Your task to perform on an android device: Open maps Image 0: 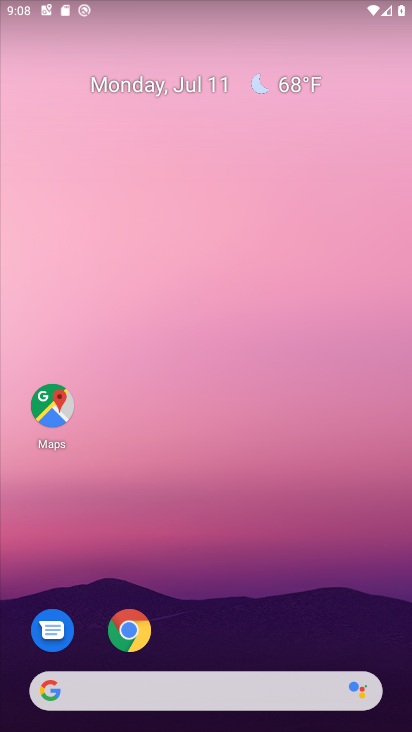
Step 0: click (51, 412)
Your task to perform on an android device: Open maps Image 1: 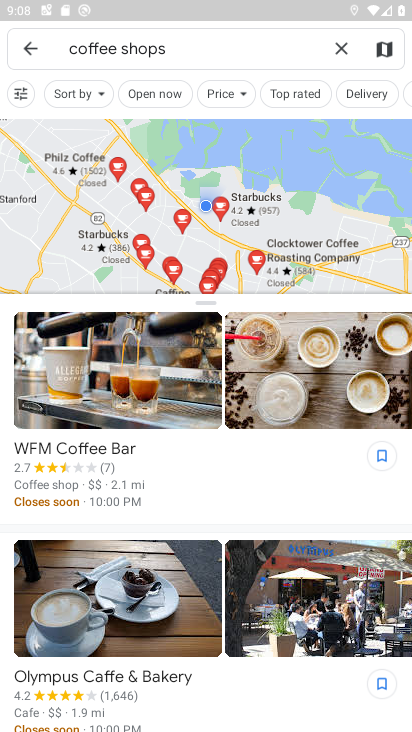
Step 1: click (13, 45)
Your task to perform on an android device: Open maps Image 2: 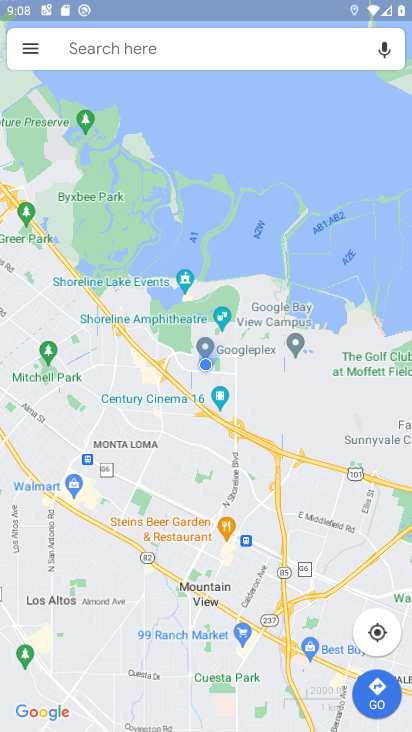
Step 2: task complete